Your task to perform on an android device: What's the weather? Image 0: 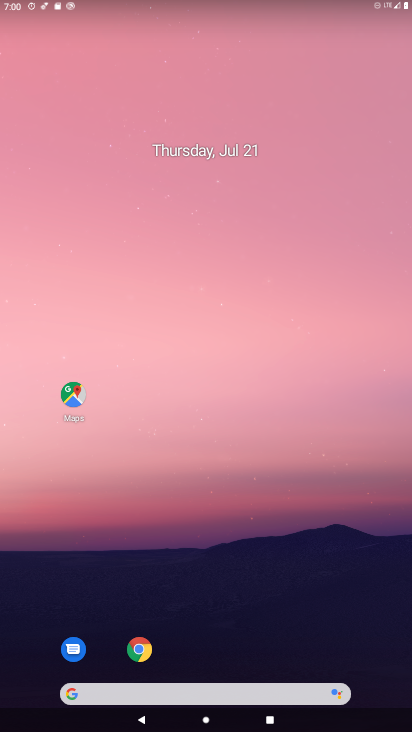
Step 0: drag from (297, 579) to (243, 0)
Your task to perform on an android device: What's the weather? Image 1: 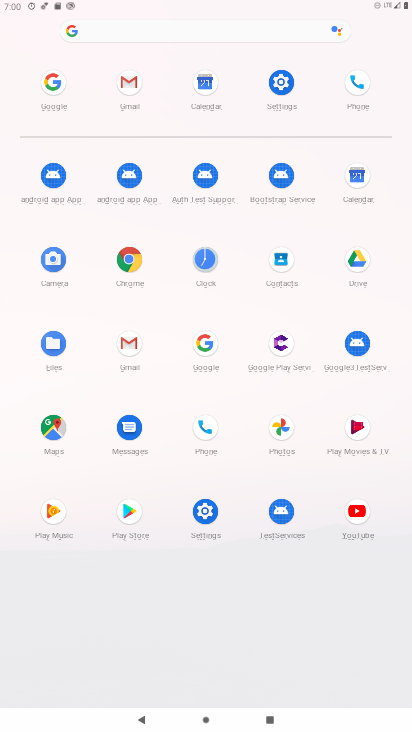
Step 1: click (193, 350)
Your task to perform on an android device: What's the weather? Image 2: 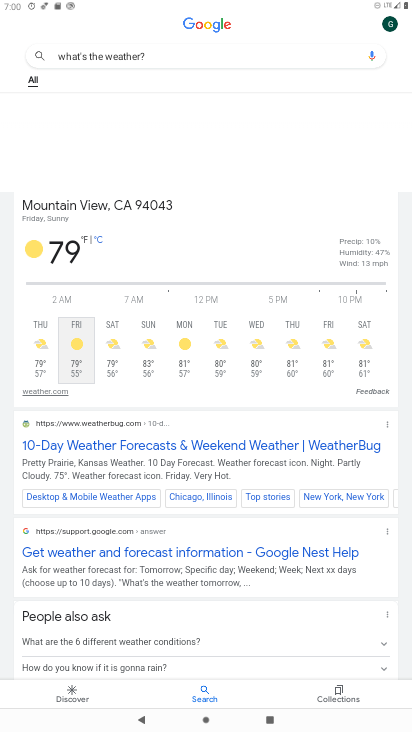
Step 2: task complete